Your task to perform on an android device: turn off priority inbox in the gmail app Image 0: 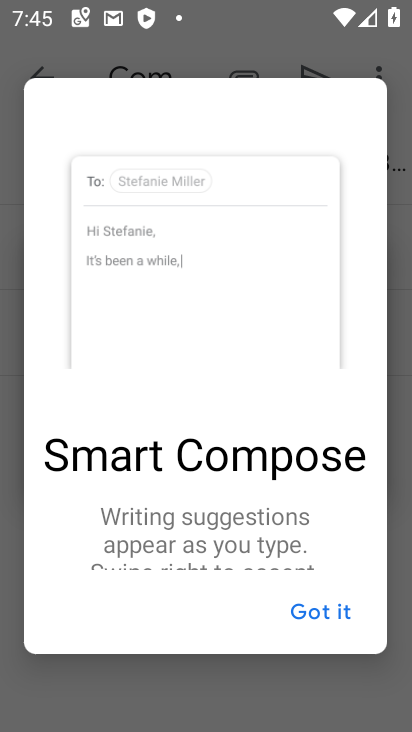
Step 0: press home button
Your task to perform on an android device: turn off priority inbox in the gmail app Image 1: 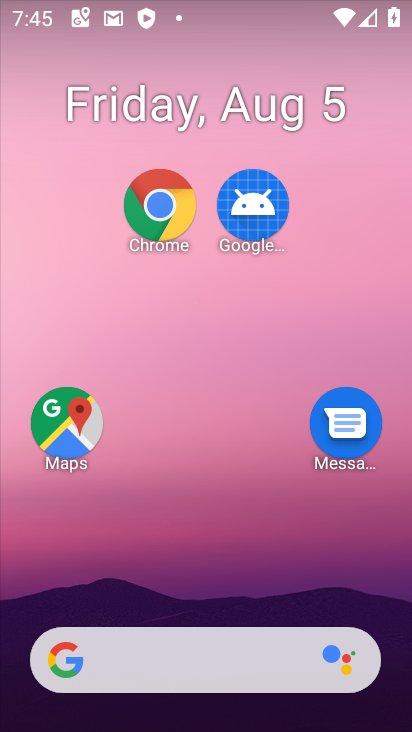
Step 1: drag from (222, 588) to (202, 110)
Your task to perform on an android device: turn off priority inbox in the gmail app Image 2: 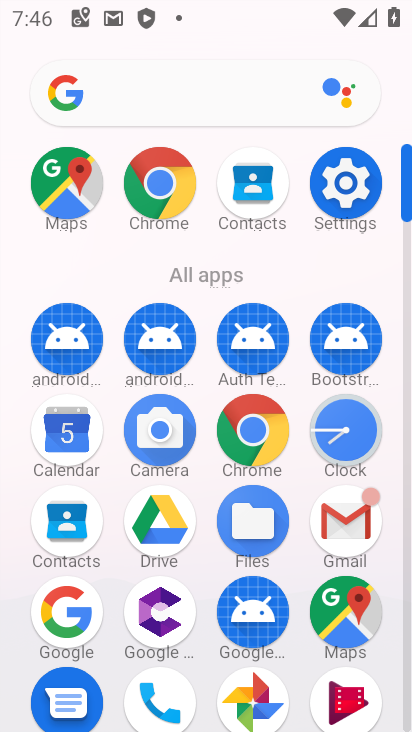
Step 2: click (362, 503)
Your task to perform on an android device: turn off priority inbox in the gmail app Image 3: 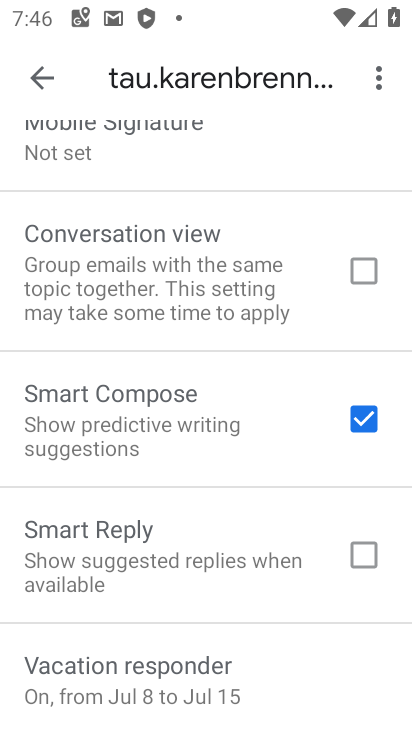
Step 3: task complete